Your task to perform on an android device: open app "Truecaller" (install if not already installed), go to login, and select forgot password Image 0: 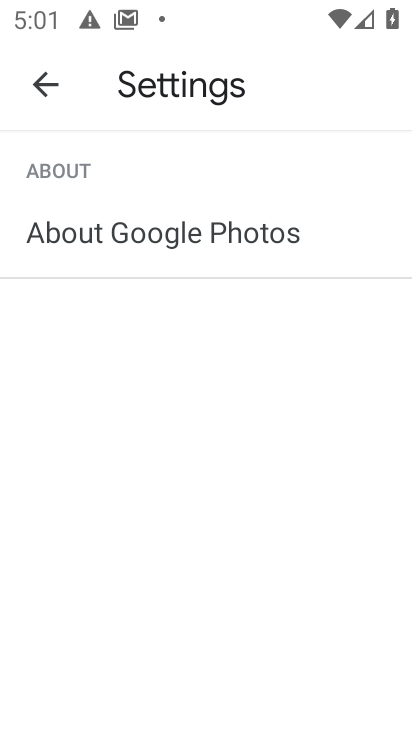
Step 0: press home button
Your task to perform on an android device: open app "Truecaller" (install if not already installed), go to login, and select forgot password Image 1: 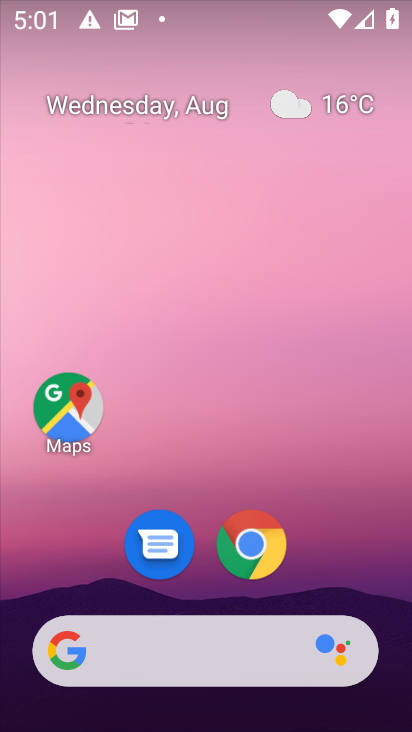
Step 1: drag from (188, 654) to (278, 168)
Your task to perform on an android device: open app "Truecaller" (install if not already installed), go to login, and select forgot password Image 2: 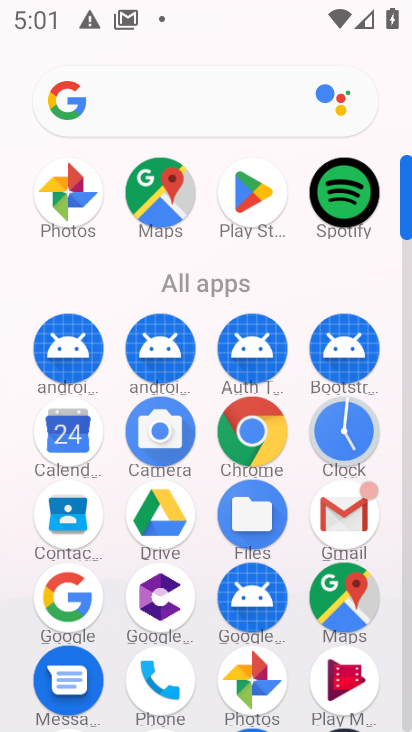
Step 2: click (253, 193)
Your task to perform on an android device: open app "Truecaller" (install if not already installed), go to login, and select forgot password Image 3: 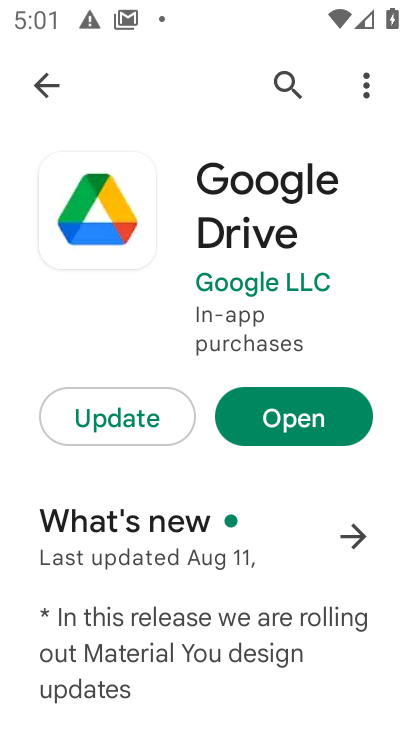
Step 3: press back button
Your task to perform on an android device: open app "Truecaller" (install if not already installed), go to login, and select forgot password Image 4: 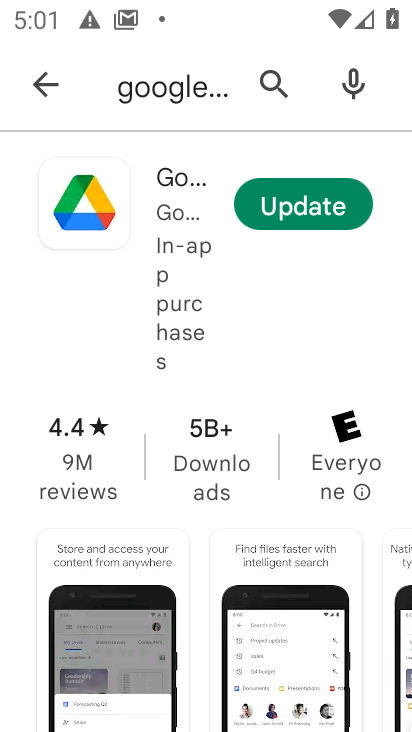
Step 4: press back button
Your task to perform on an android device: open app "Truecaller" (install if not already installed), go to login, and select forgot password Image 5: 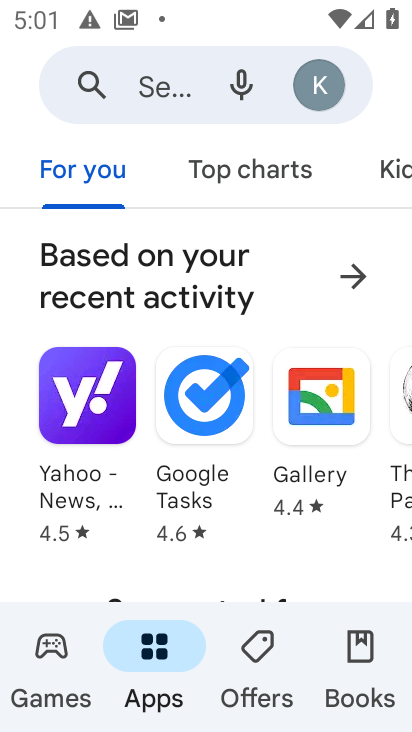
Step 5: click (159, 84)
Your task to perform on an android device: open app "Truecaller" (install if not already installed), go to login, and select forgot password Image 6: 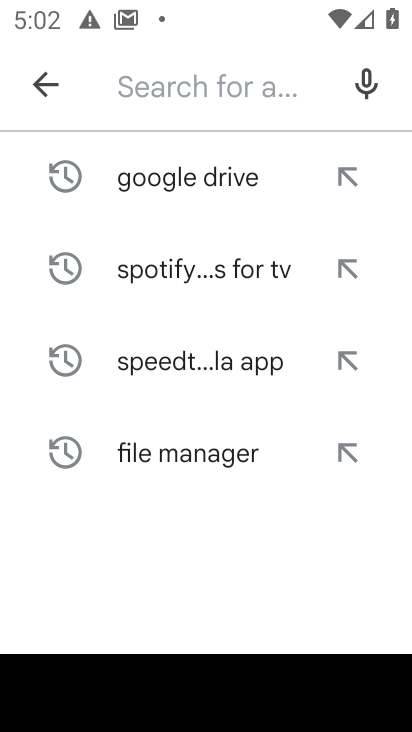
Step 6: type "Truecaller"
Your task to perform on an android device: open app "Truecaller" (install if not already installed), go to login, and select forgot password Image 7: 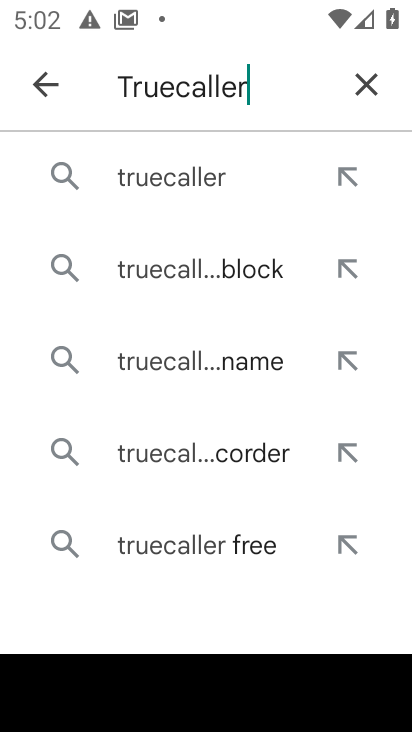
Step 7: click (202, 183)
Your task to perform on an android device: open app "Truecaller" (install if not already installed), go to login, and select forgot password Image 8: 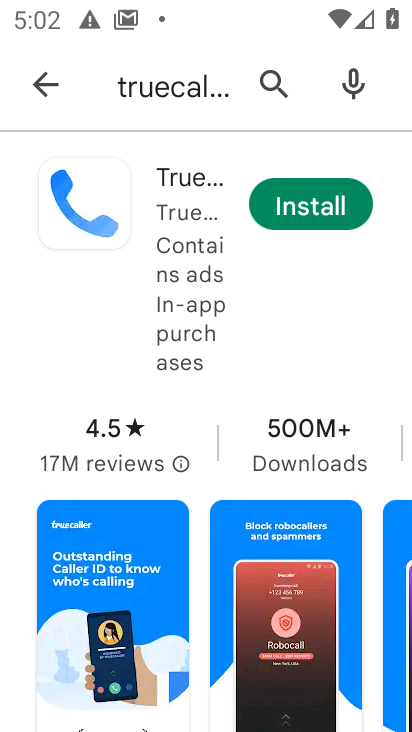
Step 8: click (304, 210)
Your task to perform on an android device: open app "Truecaller" (install if not already installed), go to login, and select forgot password Image 9: 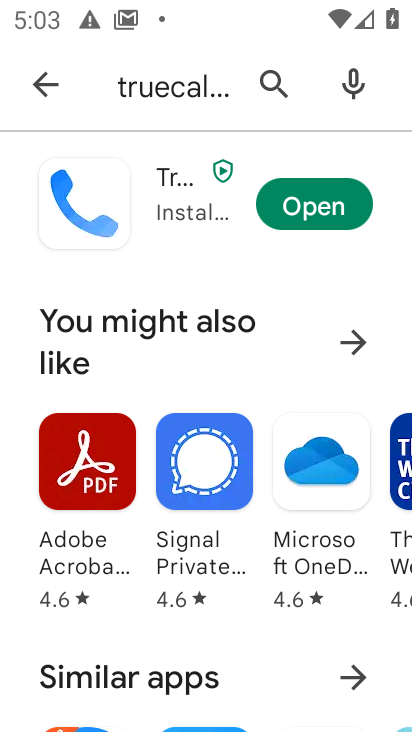
Step 9: click (327, 208)
Your task to perform on an android device: open app "Truecaller" (install if not already installed), go to login, and select forgot password Image 10: 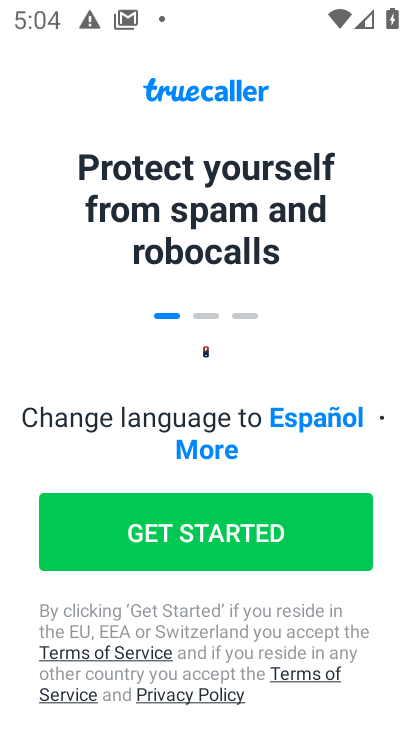
Step 10: task complete